Your task to perform on an android device: toggle airplane mode Image 0: 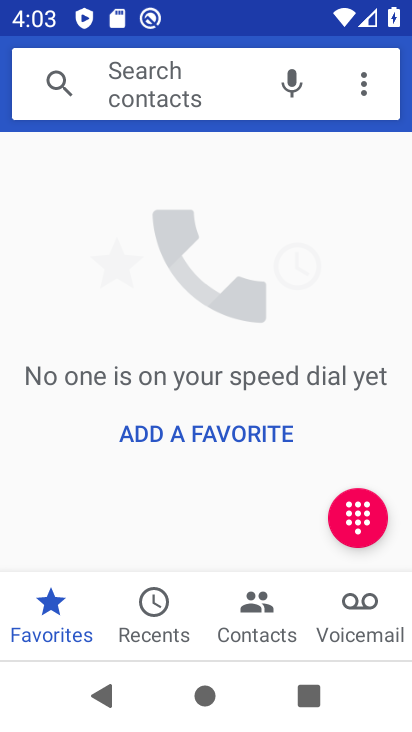
Step 0: press home button
Your task to perform on an android device: toggle airplane mode Image 1: 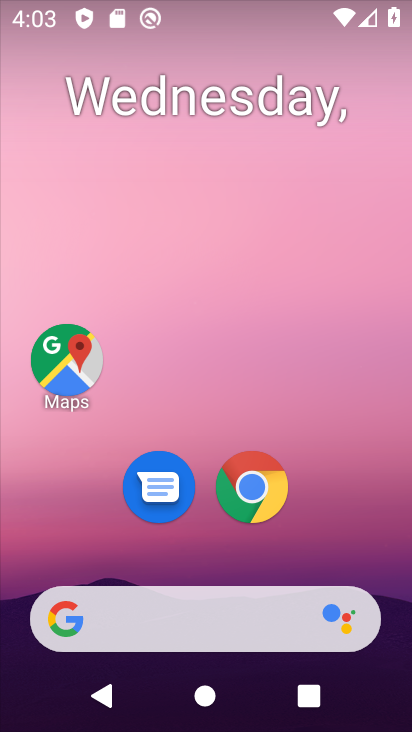
Step 1: drag from (234, 10) to (287, 420)
Your task to perform on an android device: toggle airplane mode Image 2: 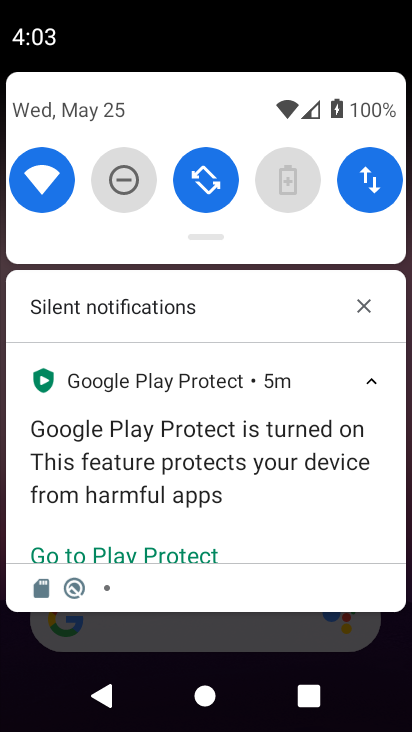
Step 2: drag from (213, 241) to (244, 572)
Your task to perform on an android device: toggle airplane mode Image 3: 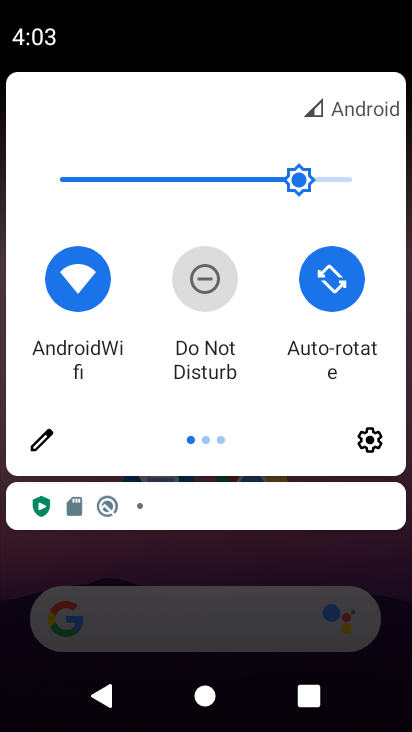
Step 3: drag from (348, 323) to (0, 294)
Your task to perform on an android device: toggle airplane mode Image 4: 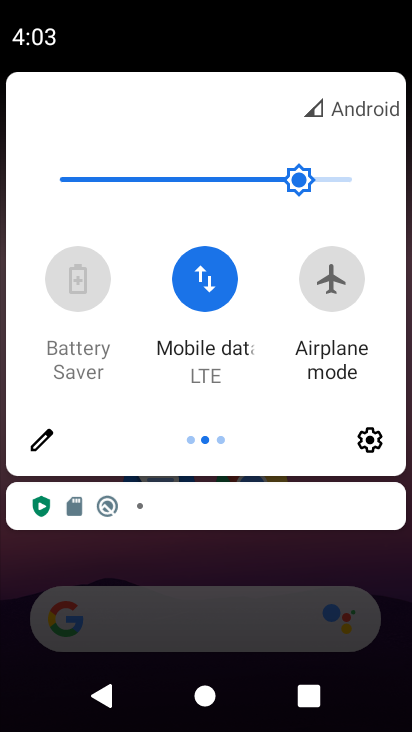
Step 4: click (318, 265)
Your task to perform on an android device: toggle airplane mode Image 5: 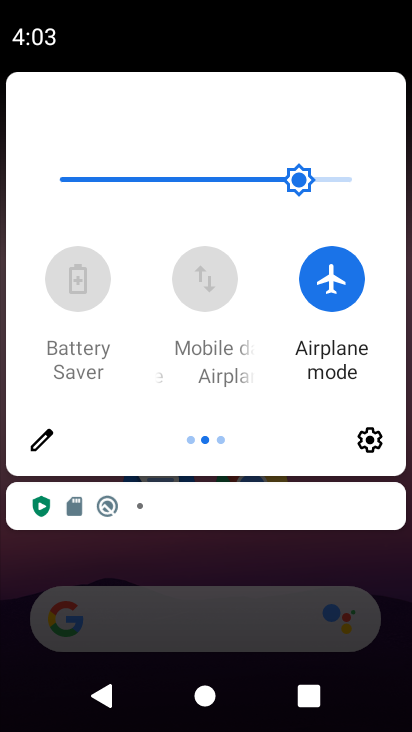
Step 5: task complete